Your task to perform on an android device: Open CNN.com Image 0: 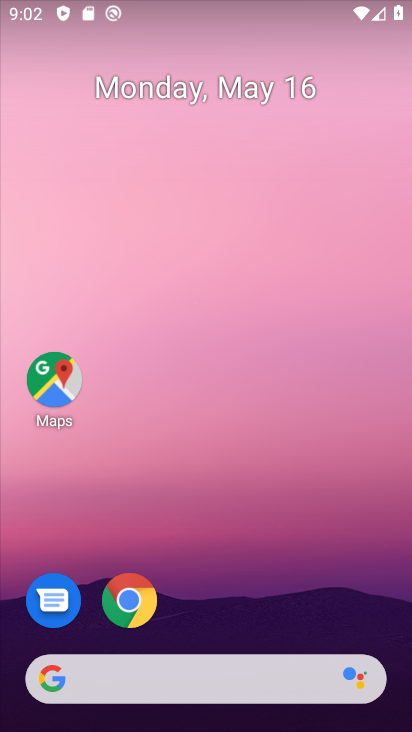
Step 0: click (127, 603)
Your task to perform on an android device: Open CNN.com Image 1: 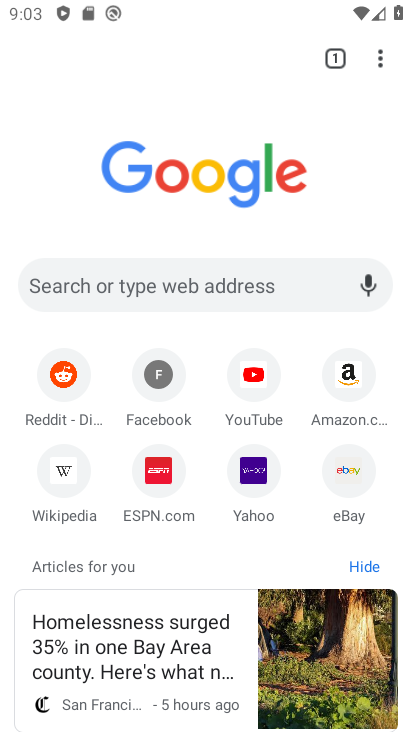
Step 1: click (195, 287)
Your task to perform on an android device: Open CNN.com Image 2: 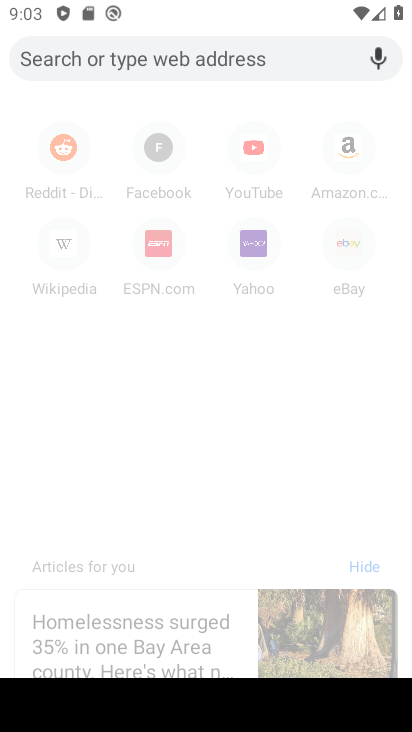
Step 2: type "www.cnn.com"
Your task to perform on an android device: Open CNN.com Image 3: 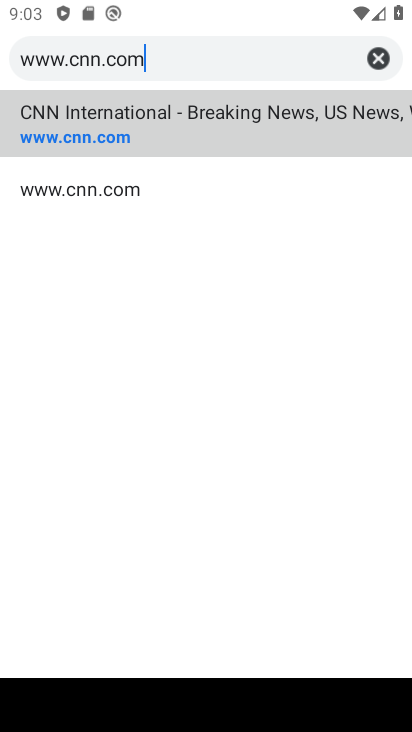
Step 3: click (52, 150)
Your task to perform on an android device: Open CNN.com Image 4: 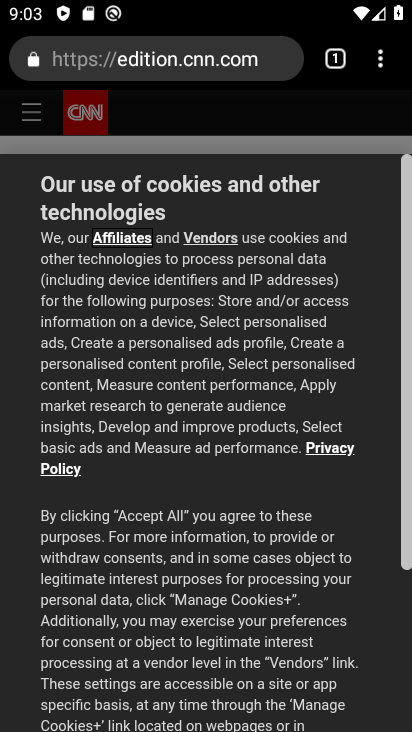
Step 4: task complete